Your task to perform on an android device: toggle location history Image 0: 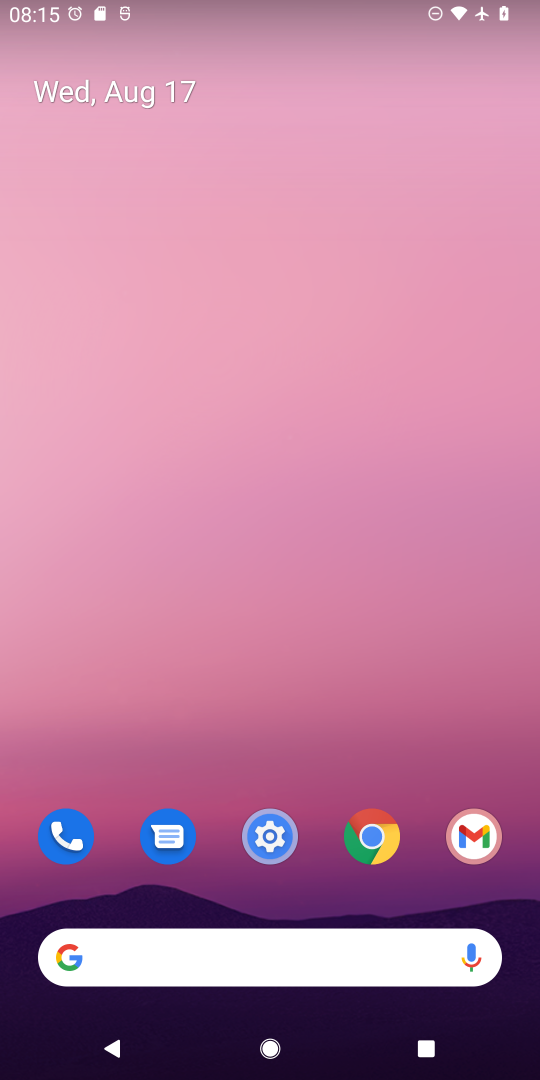
Step 0: drag from (411, 904) to (393, 329)
Your task to perform on an android device: toggle location history Image 1: 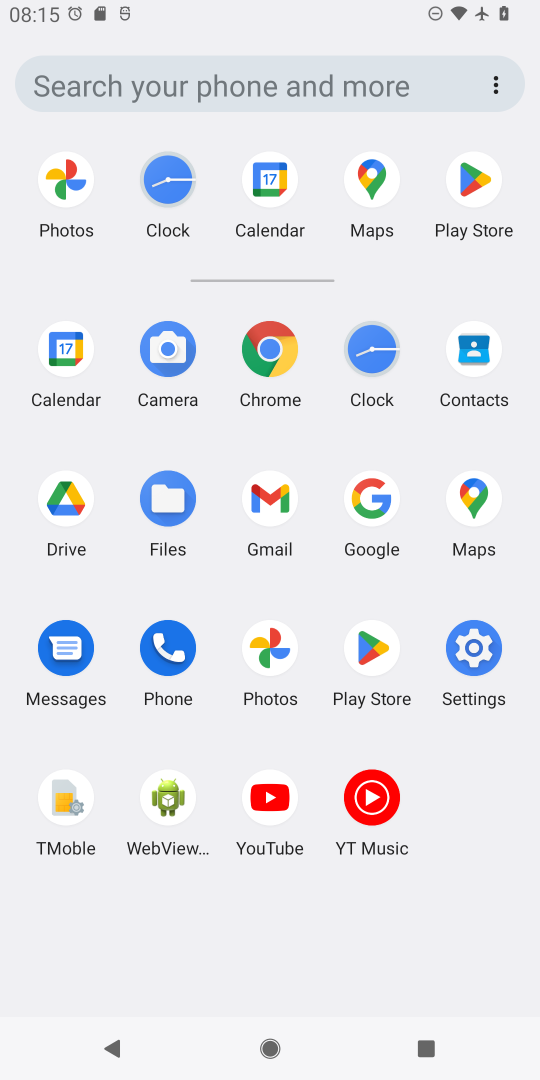
Step 1: click (467, 650)
Your task to perform on an android device: toggle location history Image 2: 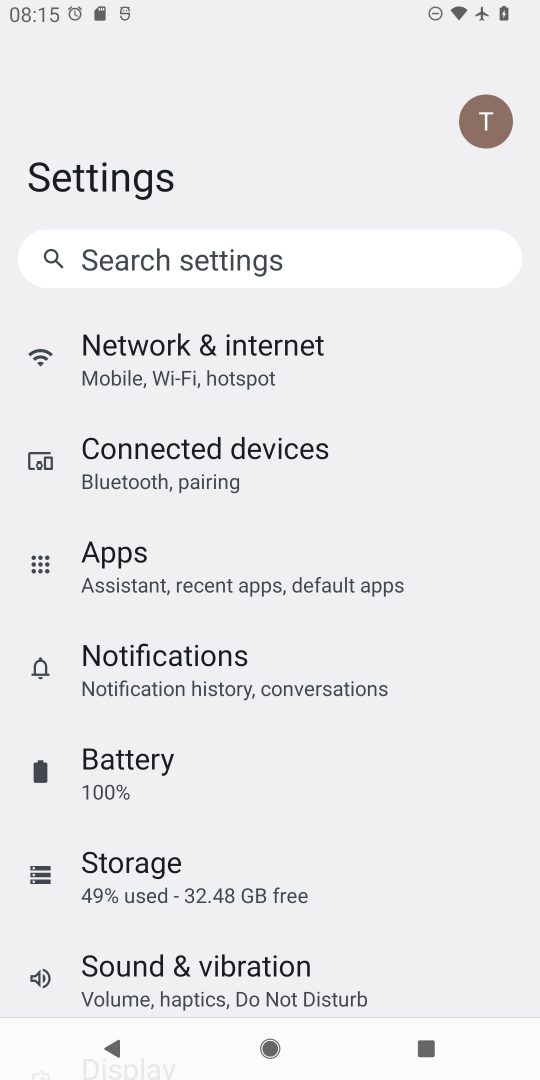
Step 2: drag from (209, 877) to (325, 342)
Your task to perform on an android device: toggle location history Image 3: 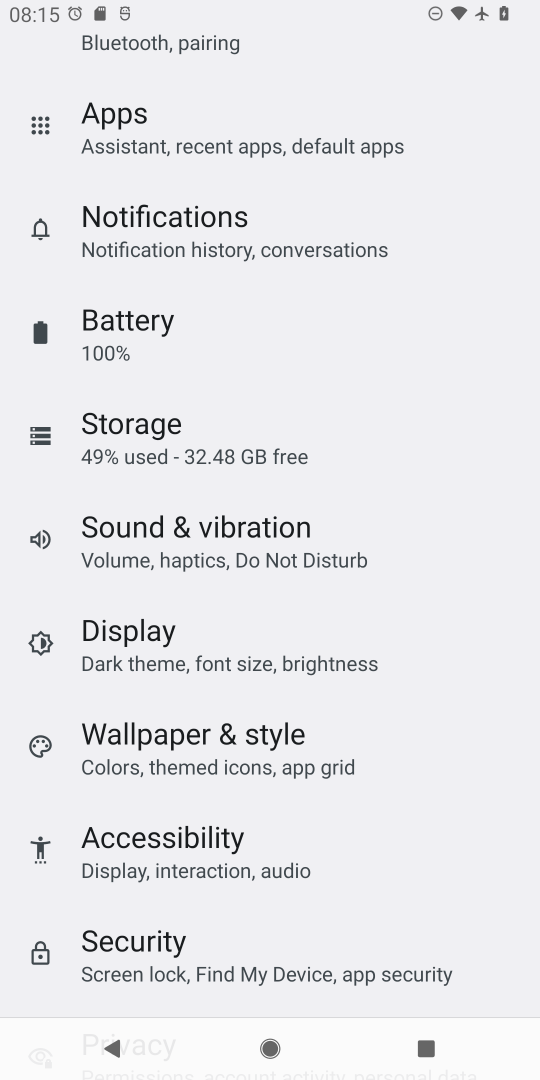
Step 3: drag from (251, 734) to (379, 224)
Your task to perform on an android device: toggle location history Image 4: 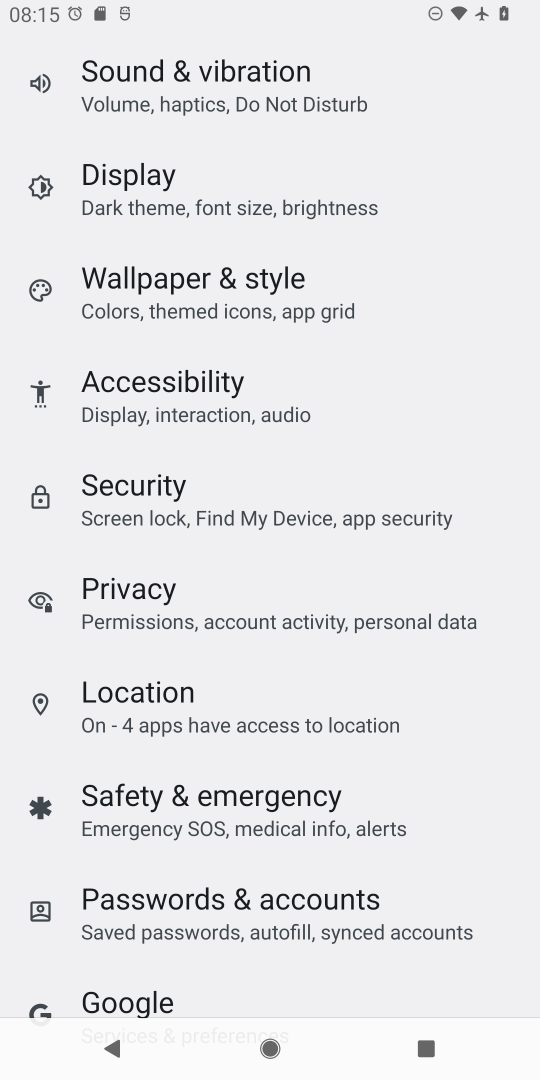
Step 4: drag from (208, 684) to (276, 395)
Your task to perform on an android device: toggle location history Image 5: 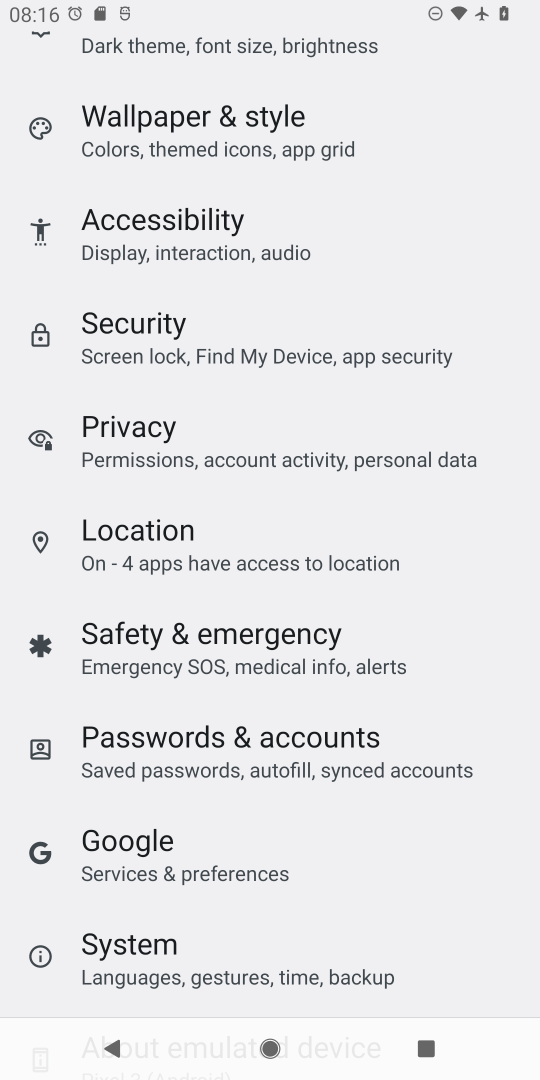
Step 5: drag from (233, 763) to (310, 390)
Your task to perform on an android device: toggle location history Image 6: 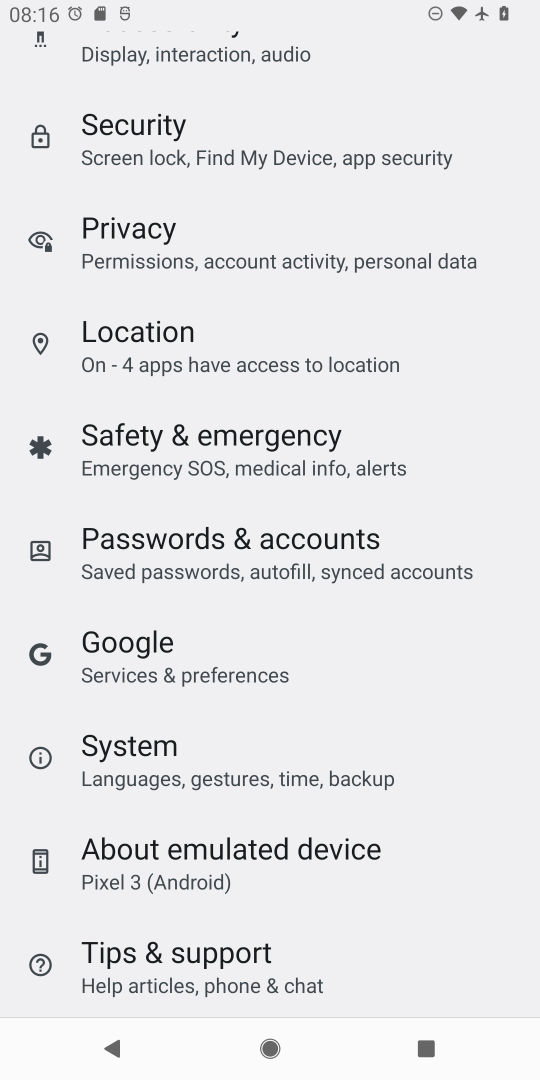
Step 6: click (245, 347)
Your task to perform on an android device: toggle location history Image 7: 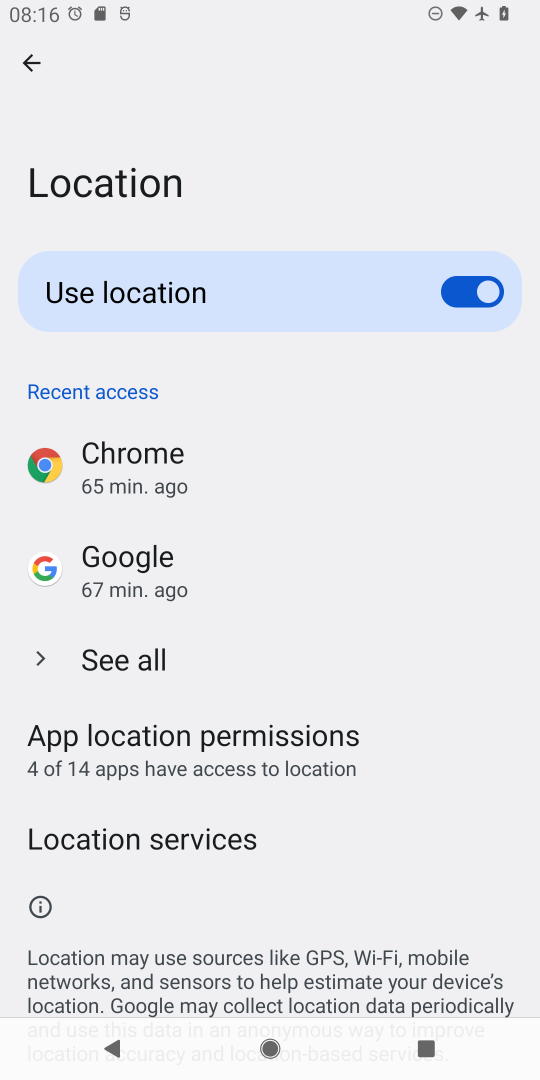
Step 7: click (264, 855)
Your task to perform on an android device: toggle location history Image 8: 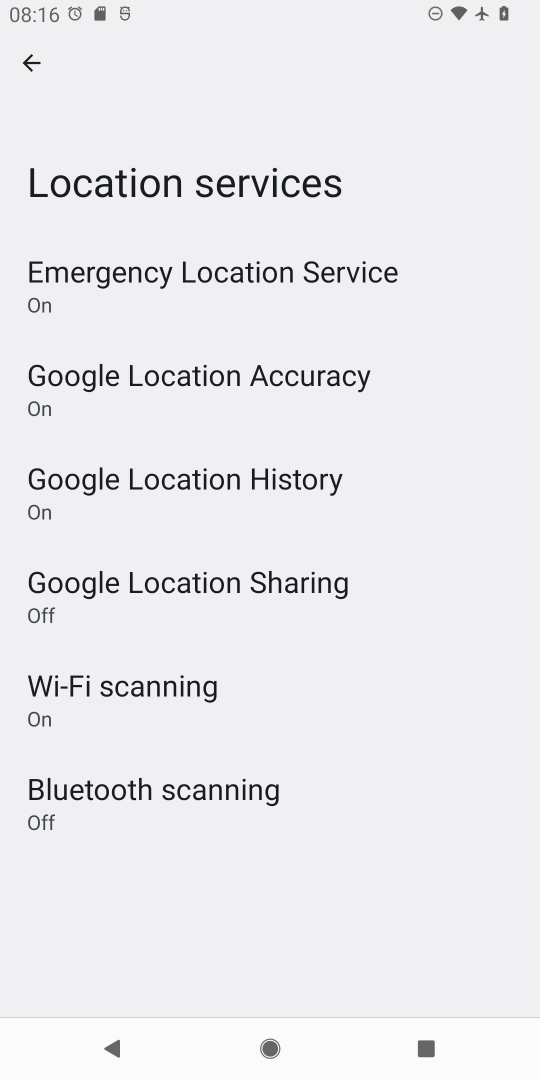
Step 8: click (315, 483)
Your task to perform on an android device: toggle location history Image 9: 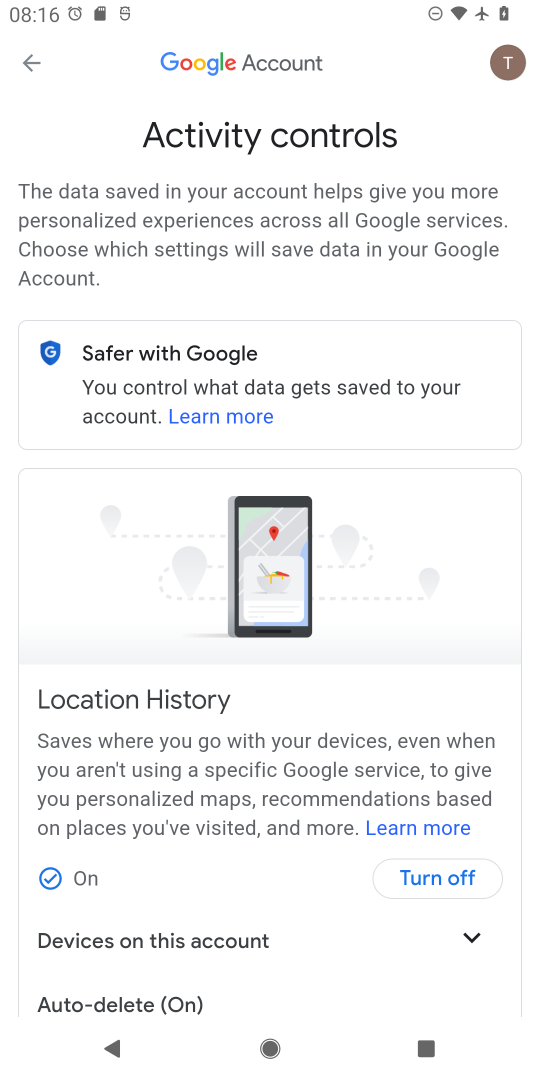
Step 9: click (419, 872)
Your task to perform on an android device: toggle location history Image 10: 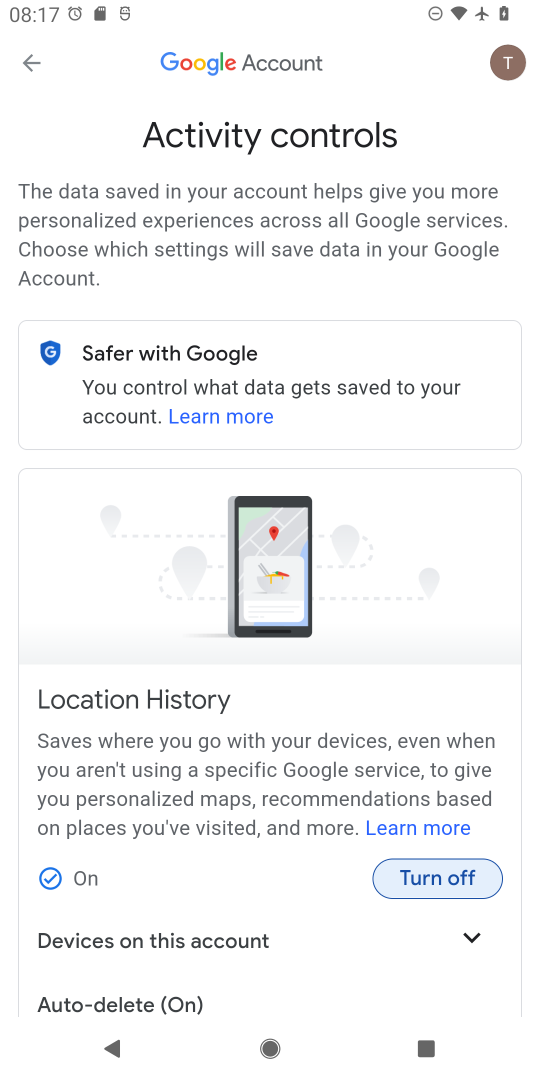
Step 10: task complete